Your task to perform on an android device: Search for seafood restaurants on Google Maps Image 0: 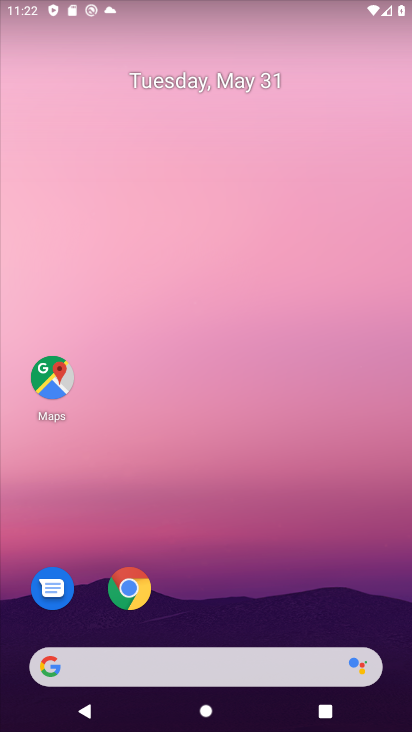
Step 0: click (61, 379)
Your task to perform on an android device: Search for seafood restaurants on Google Maps Image 1: 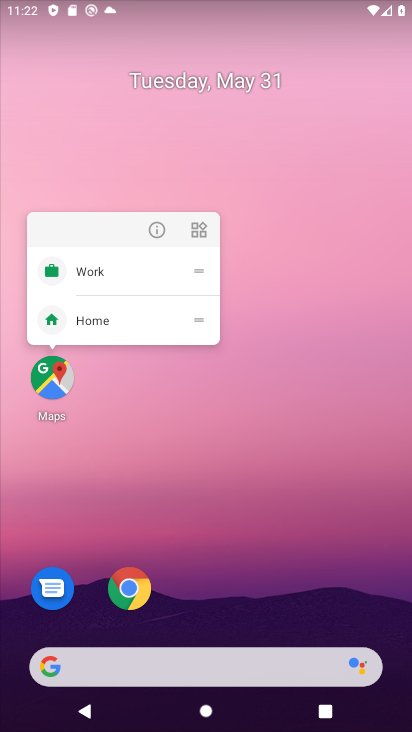
Step 1: click (155, 230)
Your task to perform on an android device: Search for seafood restaurants on Google Maps Image 2: 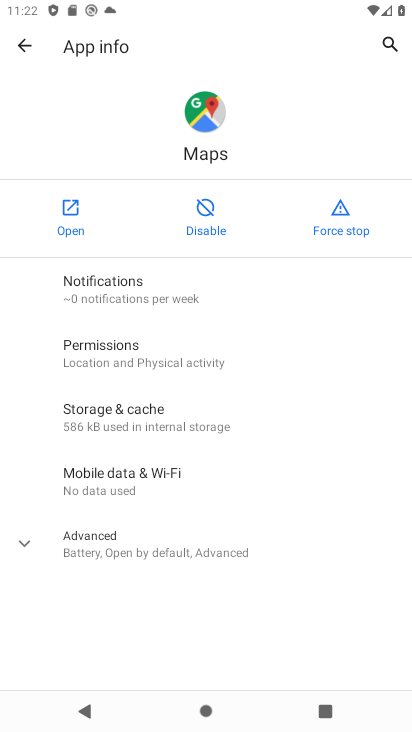
Step 2: click (66, 212)
Your task to perform on an android device: Search for seafood restaurants on Google Maps Image 3: 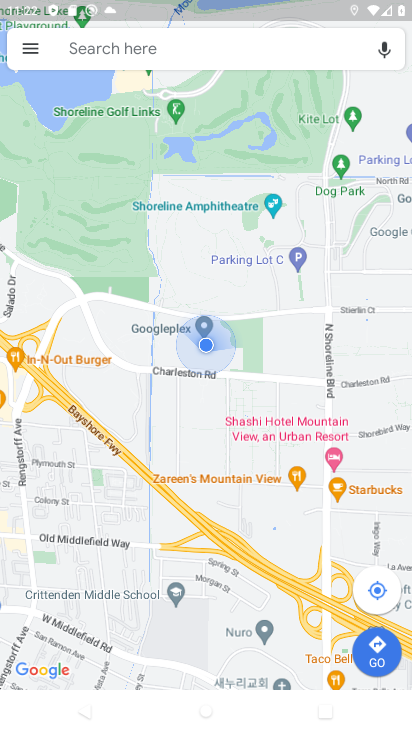
Step 3: click (96, 60)
Your task to perform on an android device: Search for seafood restaurants on Google Maps Image 4: 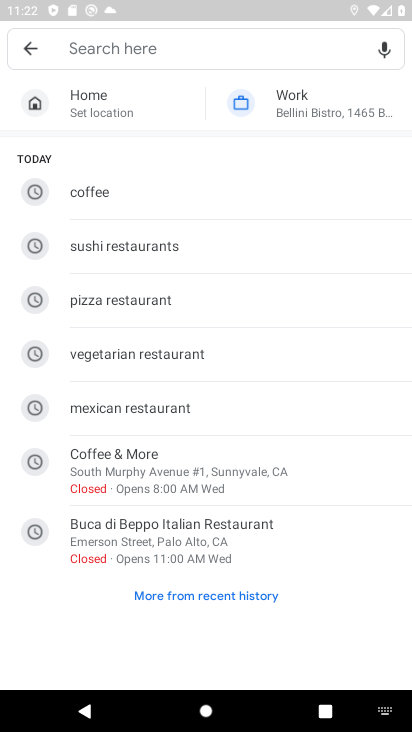
Step 4: type "seafood restaurants"
Your task to perform on an android device: Search for seafood restaurants on Google Maps Image 5: 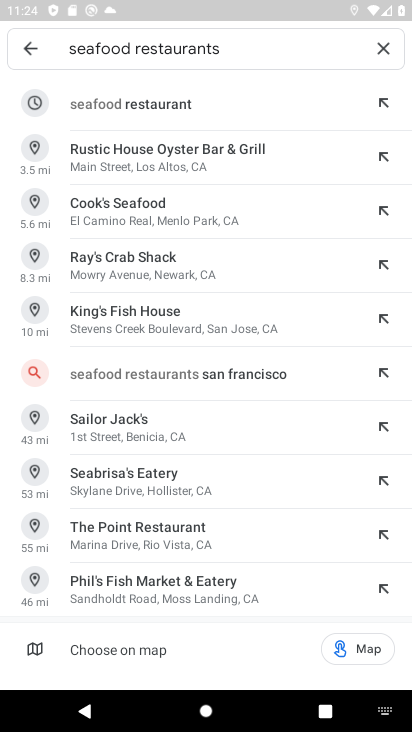
Step 5: click (208, 122)
Your task to perform on an android device: Search for seafood restaurants on Google Maps Image 6: 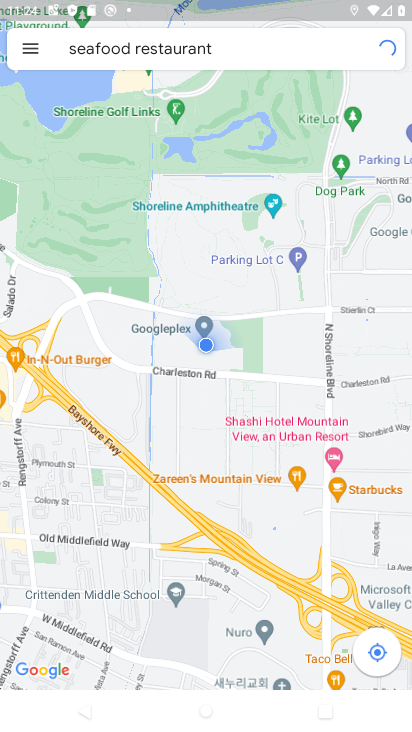
Step 6: task complete